Your task to perform on an android device: Go to Google maps Image 0: 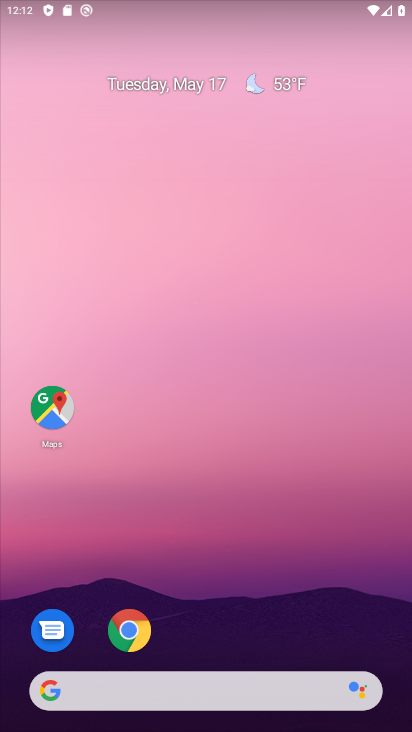
Step 0: drag from (221, 617) to (223, 347)
Your task to perform on an android device: Go to Google maps Image 1: 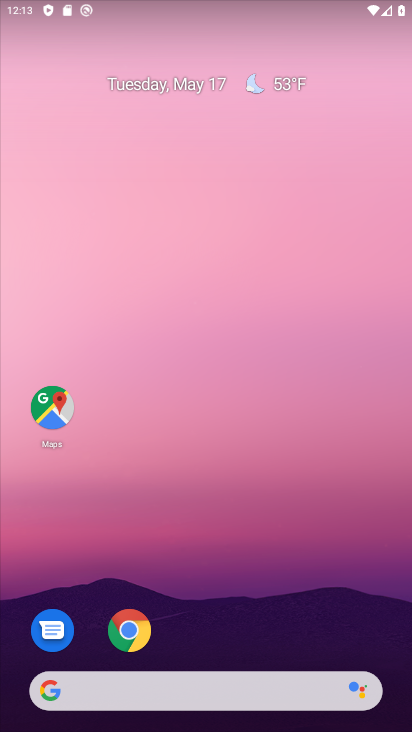
Step 1: drag from (234, 587) to (277, 145)
Your task to perform on an android device: Go to Google maps Image 2: 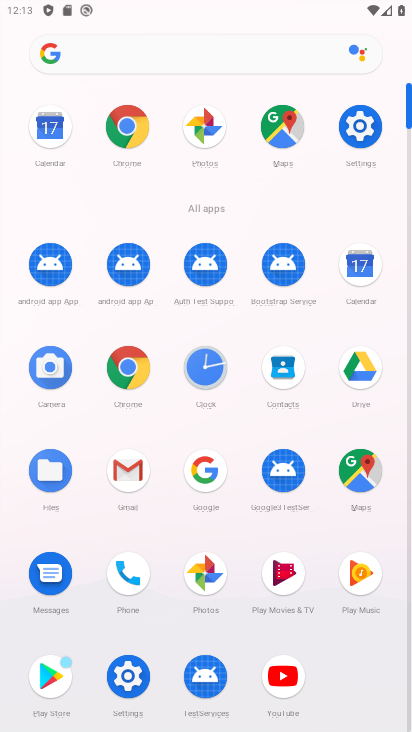
Step 2: click (353, 476)
Your task to perform on an android device: Go to Google maps Image 3: 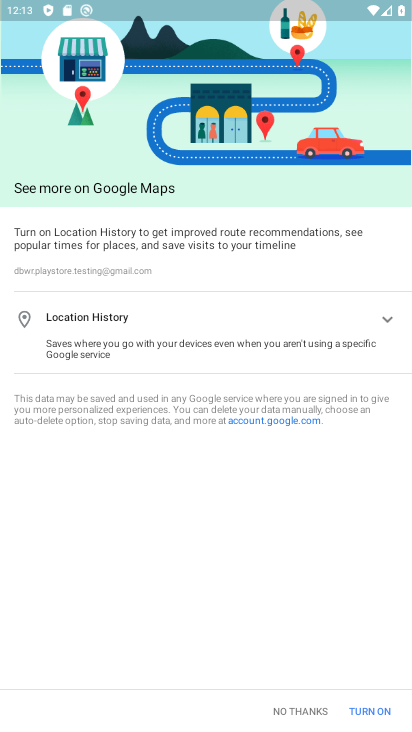
Step 3: click (347, 712)
Your task to perform on an android device: Go to Google maps Image 4: 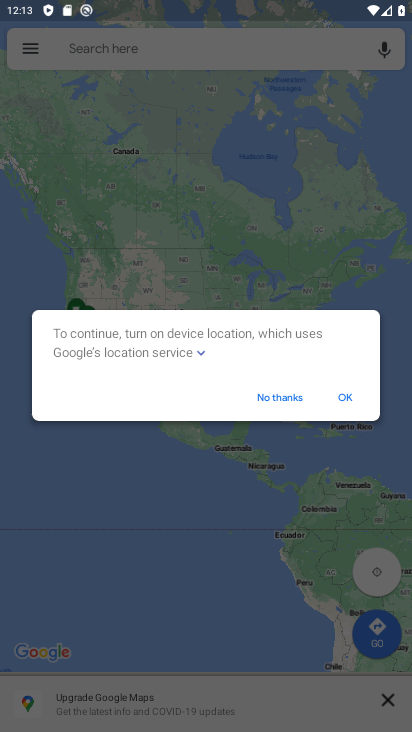
Step 4: click (348, 403)
Your task to perform on an android device: Go to Google maps Image 5: 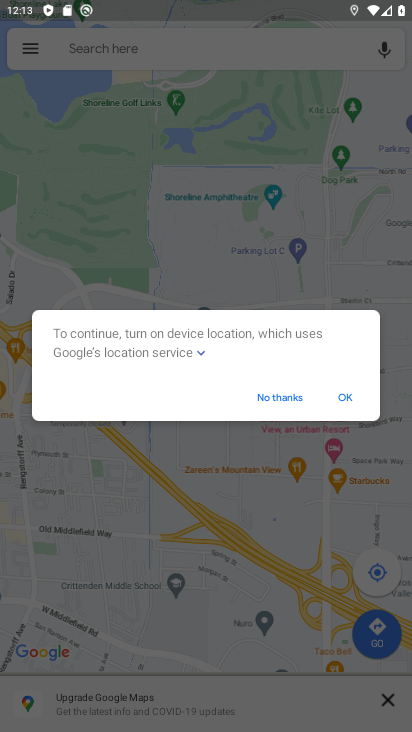
Step 5: click (345, 396)
Your task to perform on an android device: Go to Google maps Image 6: 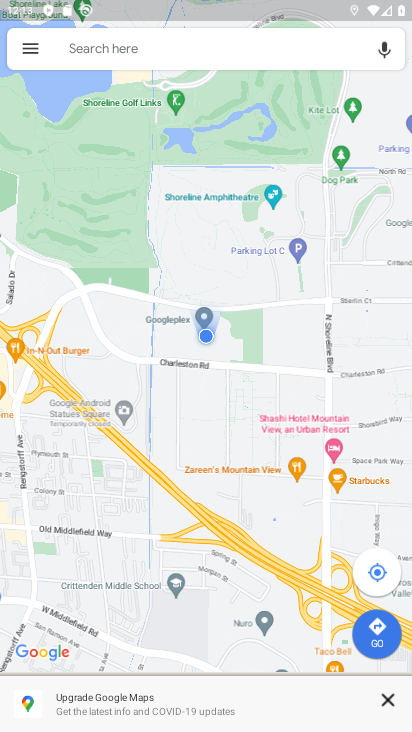
Step 6: task complete